Your task to perform on an android device: toggle airplane mode Image 0: 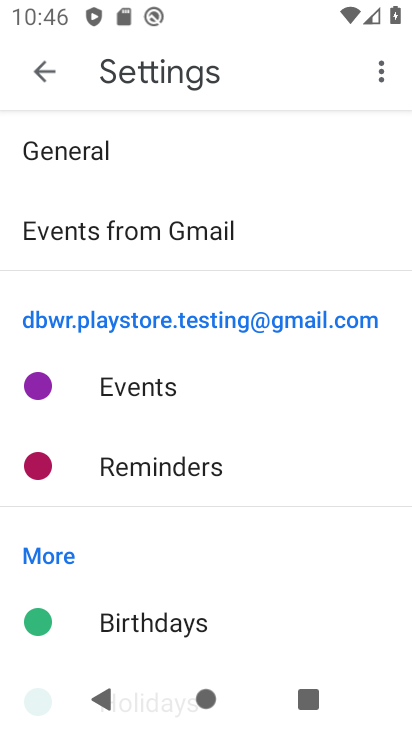
Step 0: press home button
Your task to perform on an android device: toggle airplane mode Image 1: 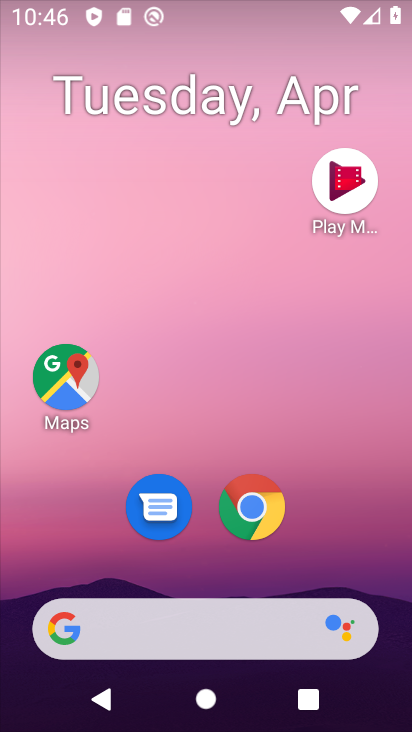
Step 1: drag from (186, 585) to (182, 71)
Your task to perform on an android device: toggle airplane mode Image 2: 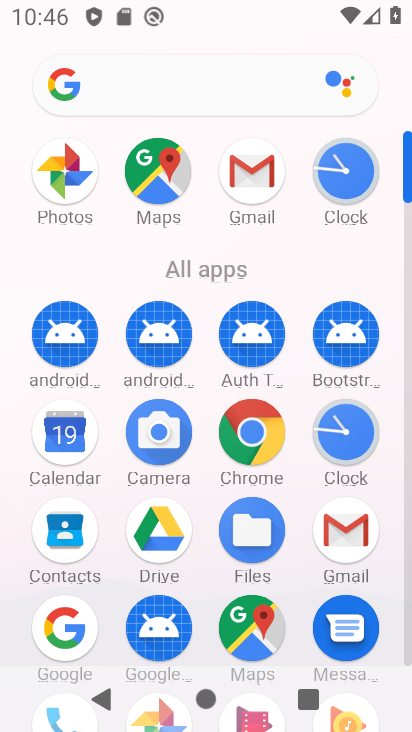
Step 2: drag from (194, 606) to (229, 285)
Your task to perform on an android device: toggle airplane mode Image 3: 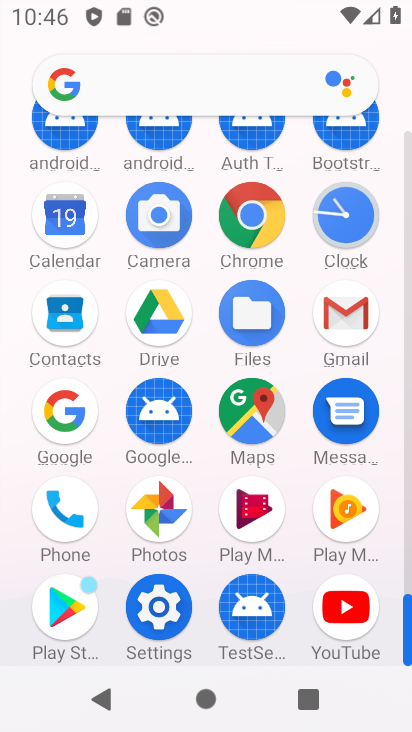
Step 3: click (162, 587)
Your task to perform on an android device: toggle airplane mode Image 4: 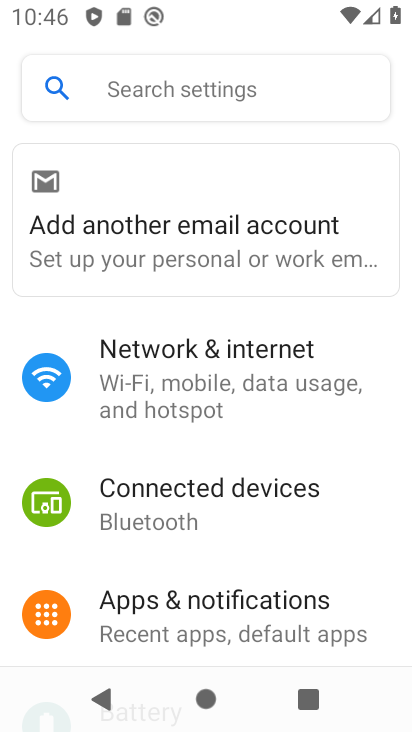
Step 4: click (218, 352)
Your task to perform on an android device: toggle airplane mode Image 5: 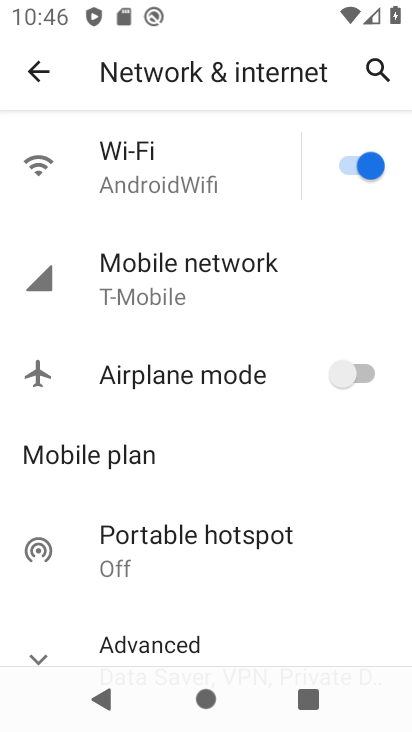
Step 5: click (359, 370)
Your task to perform on an android device: toggle airplane mode Image 6: 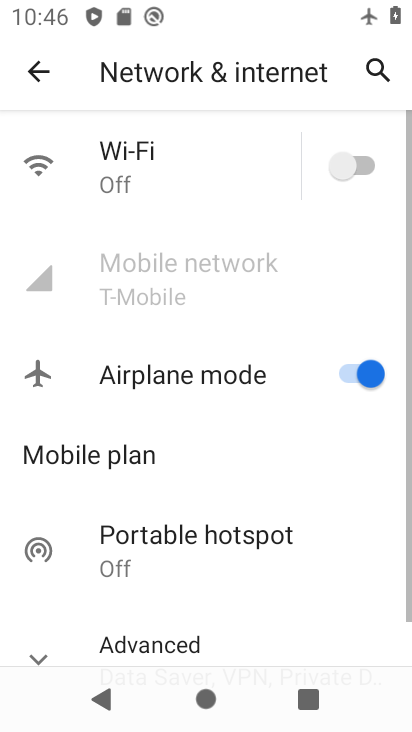
Step 6: task complete